Your task to perform on an android device: Go to wifi settings Image 0: 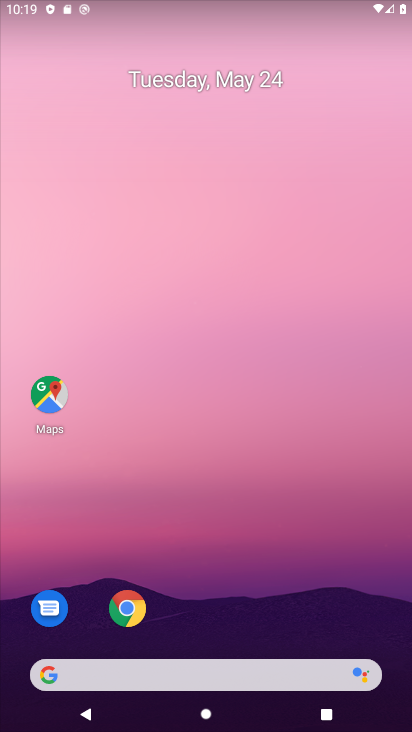
Step 0: drag from (384, 630) to (282, 81)
Your task to perform on an android device: Go to wifi settings Image 1: 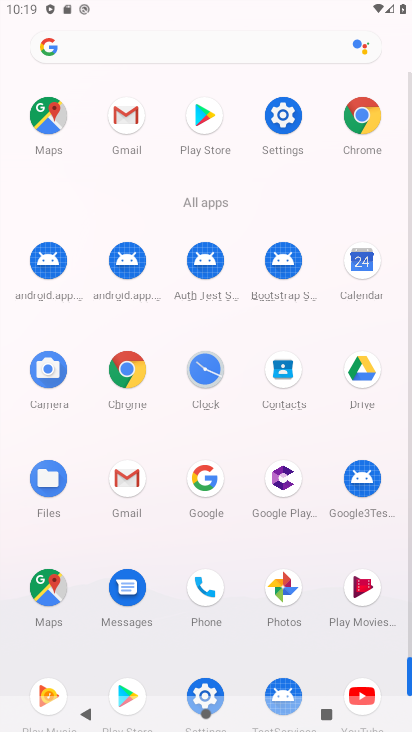
Step 1: click (202, 690)
Your task to perform on an android device: Go to wifi settings Image 2: 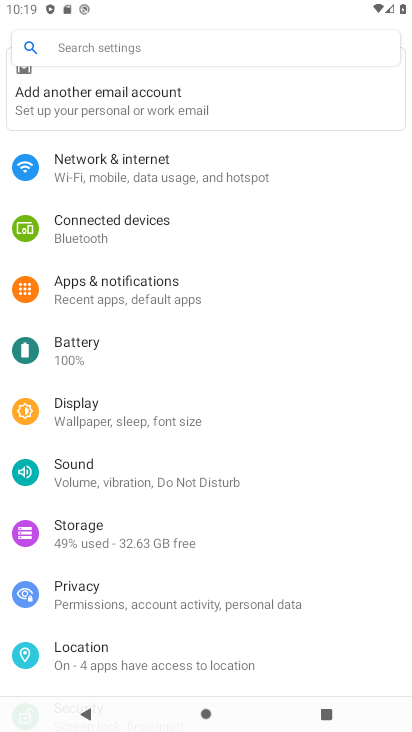
Step 2: click (107, 159)
Your task to perform on an android device: Go to wifi settings Image 3: 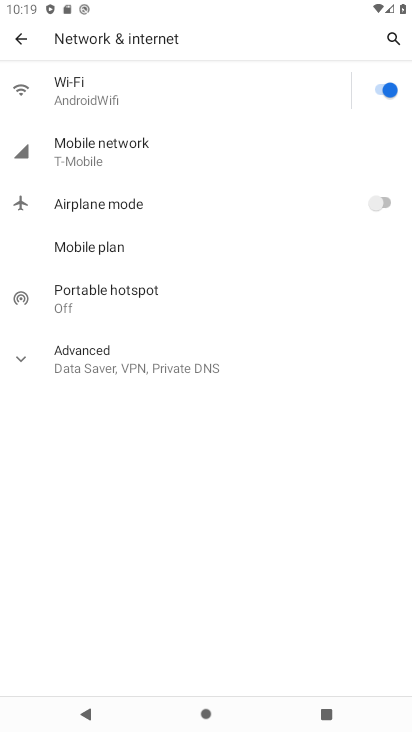
Step 3: click (72, 89)
Your task to perform on an android device: Go to wifi settings Image 4: 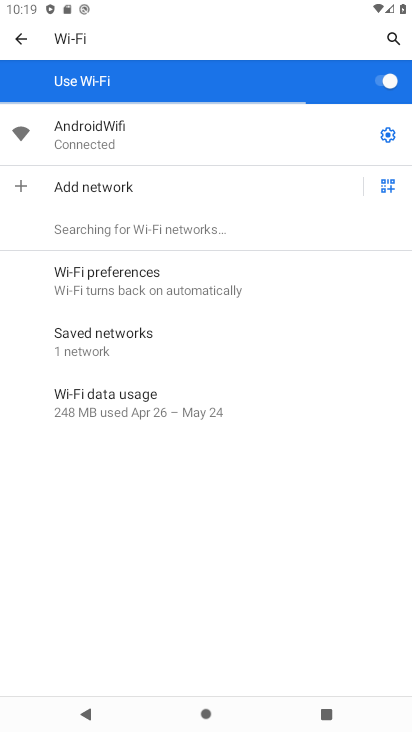
Step 4: click (389, 134)
Your task to perform on an android device: Go to wifi settings Image 5: 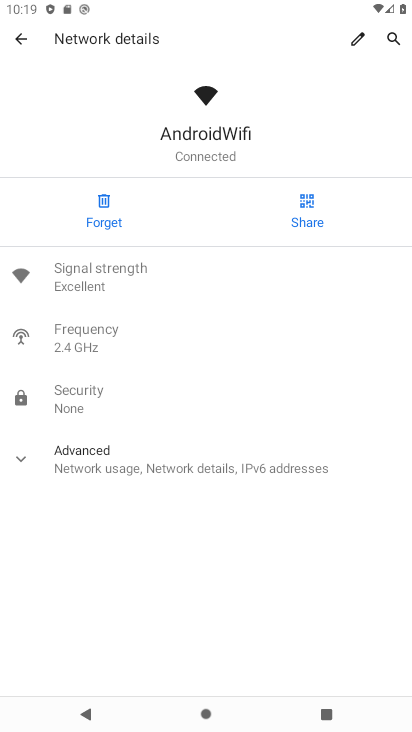
Step 5: click (17, 452)
Your task to perform on an android device: Go to wifi settings Image 6: 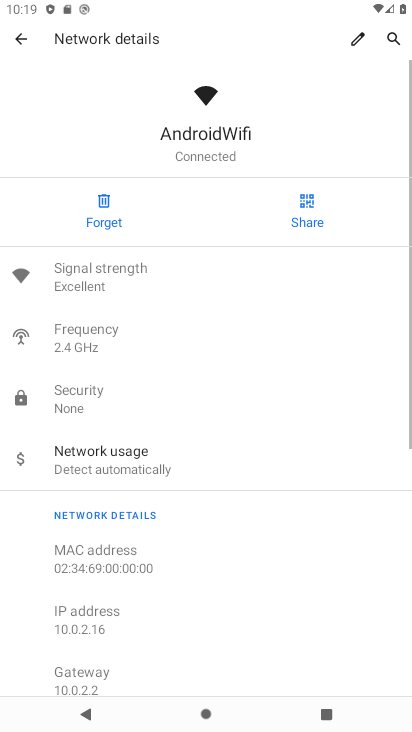
Step 6: task complete